Your task to perform on an android device: Open CNN.com Image 0: 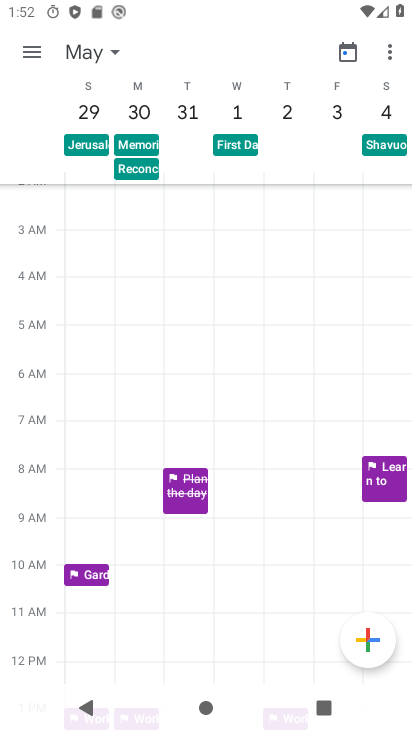
Step 0: press home button
Your task to perform on an android device: Open CNN.com Image 1: 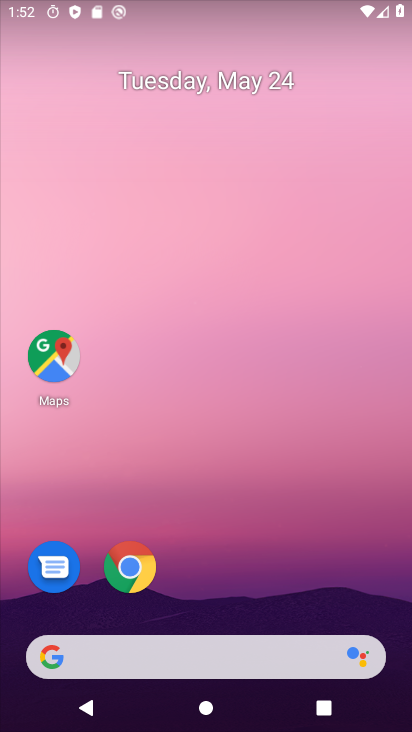
Step 1: click (140, 560)
Your task to perform on an android device: Open CNN.com Image 2: 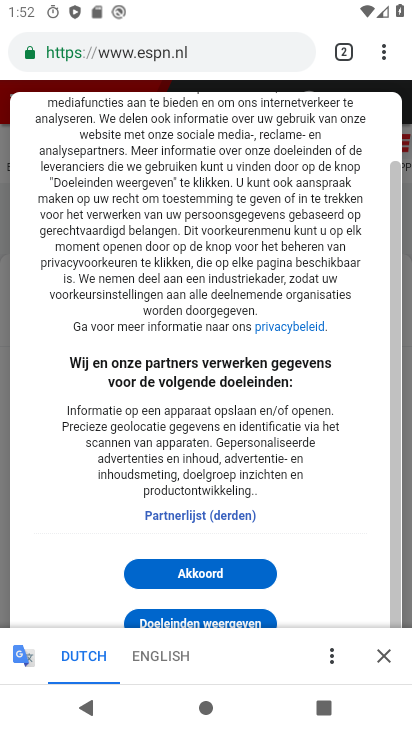
Step 2: click (196, 52)
Your task to perform on an android device: Open CNN.com Image 3: 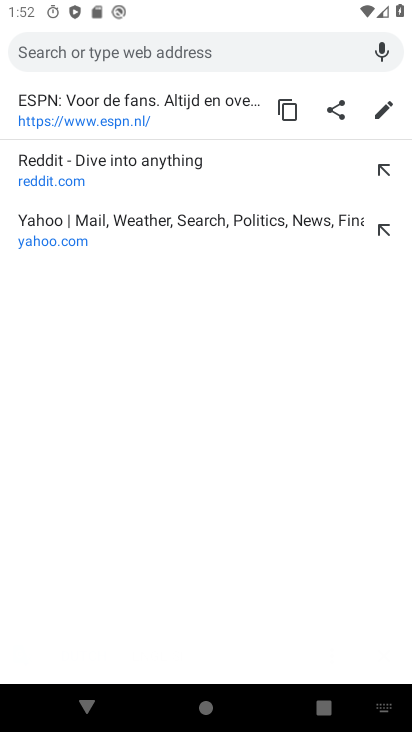
Step 3: type "CNN.com"
Your task to perform on an android device: Open CNN.com Image 4: 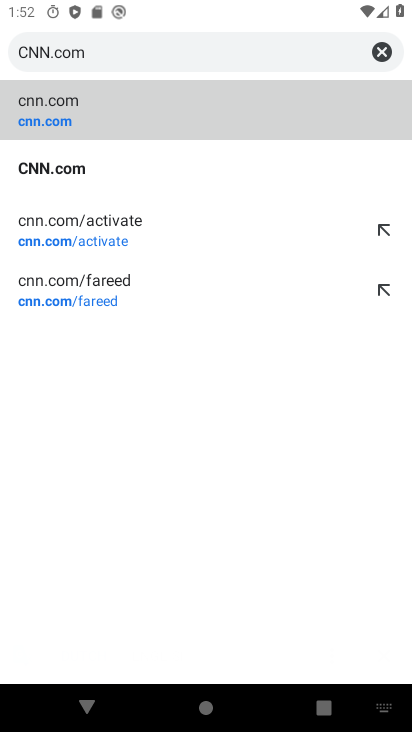
Step 4: click (82, 173)
Your task to perform on an android device: Open CNN.com Image 5: 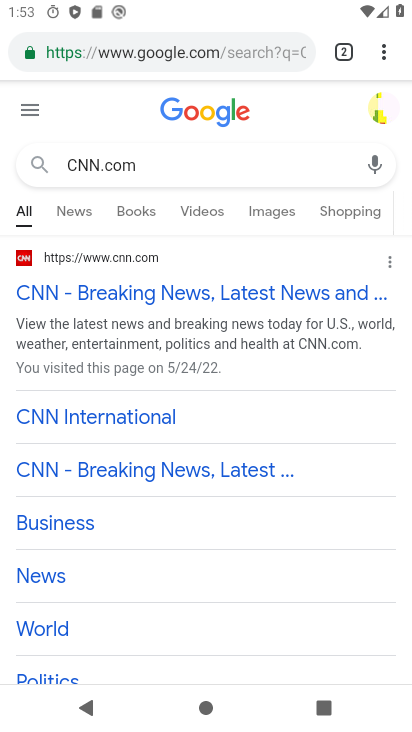
Step 5: task complete